Your task to perform on an android device: empty trash in the gmail app Image 0: 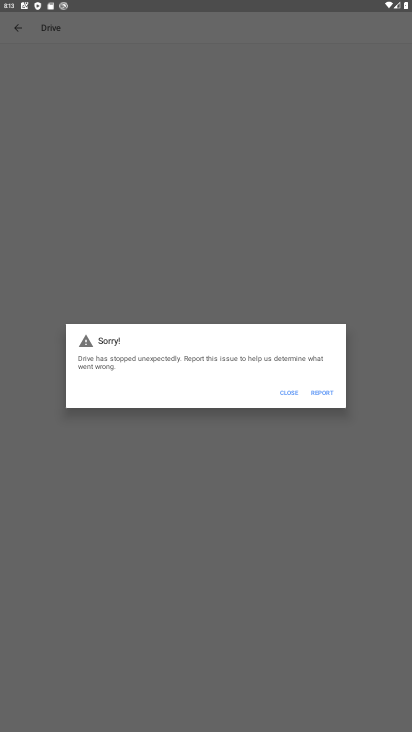
Step 0: press home button
Your task to perform on an android device: empty trash in the gmail app Image 1: 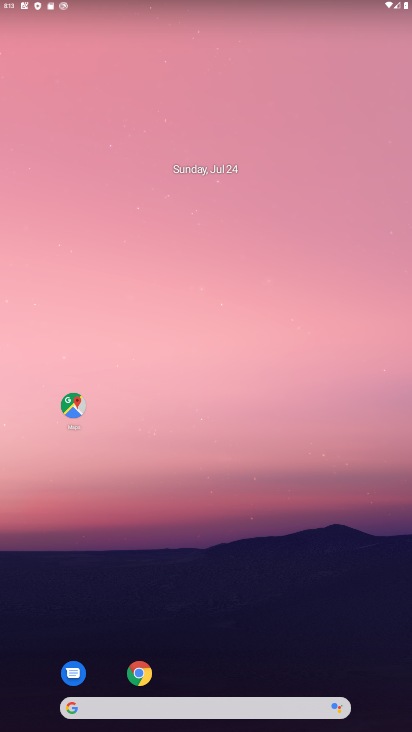
Step 1: drag from (202, 436) to (191, 219)
Your task to perform on an android device: empty trash in the gmail app Image 2: 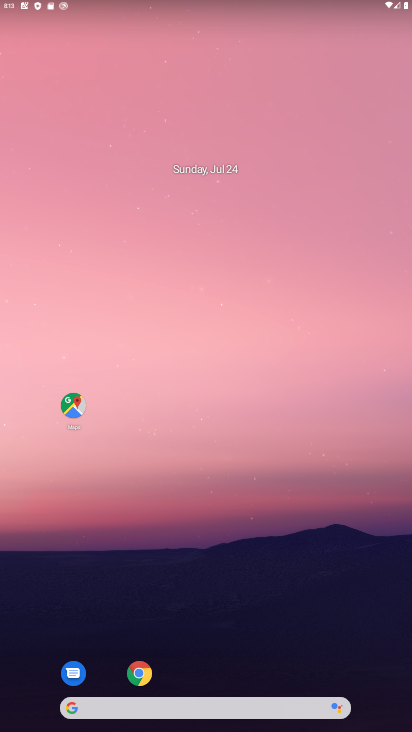
Step 2: drag from (199, 618) to (182, 159)
Your task to perform on an android device: empty trash in the gmail app Image 3: 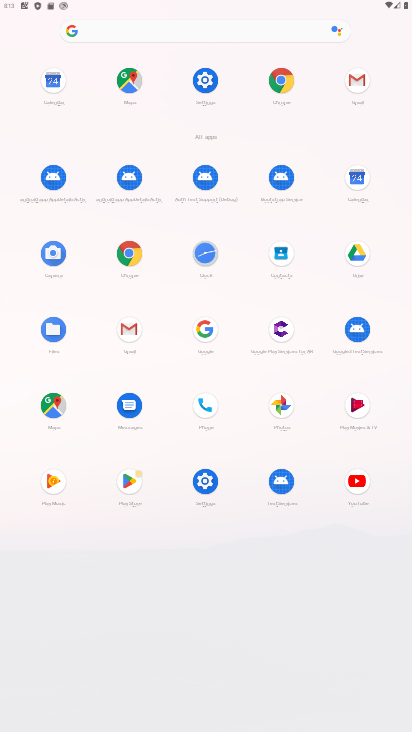
Step 3: click (357, 85)
Your task to perform on an android device: empty trash in the gmail app Image 4: 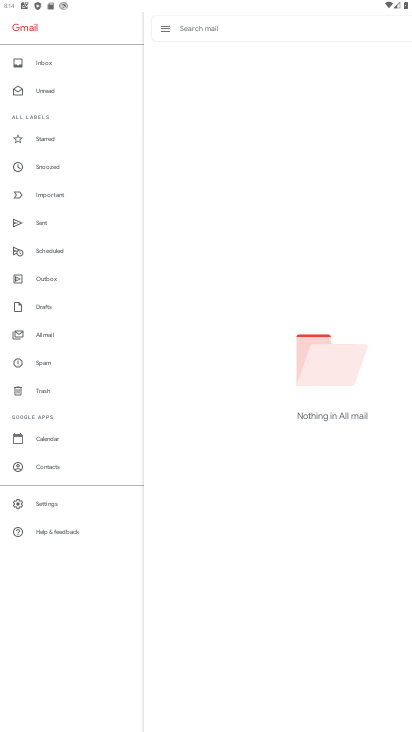
Step 4: click (38, 389)
Your task to perform on an android device: empty trash in the gmail app Image 5: 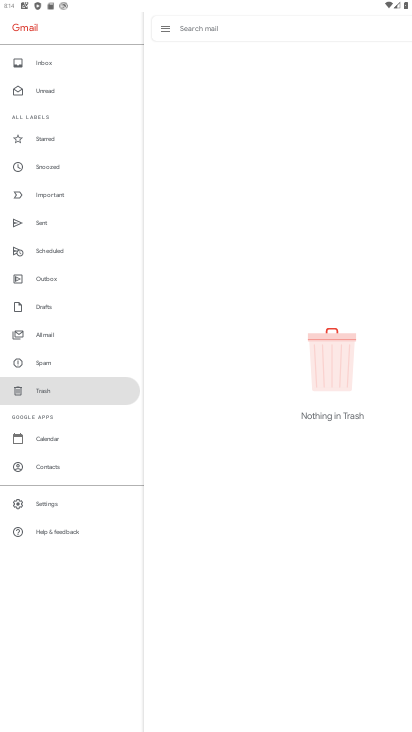
Step 5: task complete